Your task to perform on an android device: check android version Image 0: 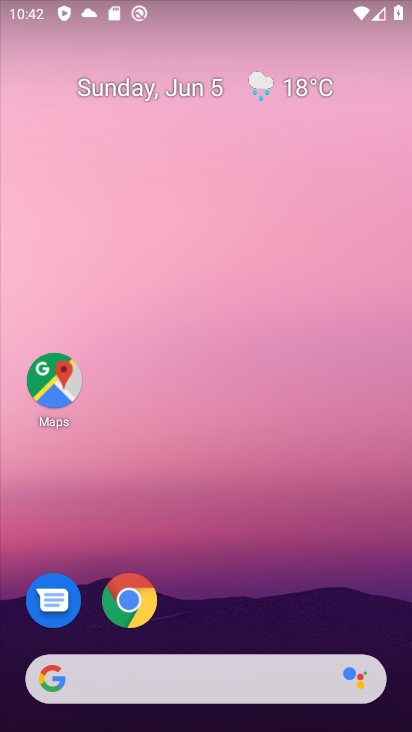
Step 0: drag from (242, 631) to (241, 218)
Your task to perform on an android device: check android version Image 1: 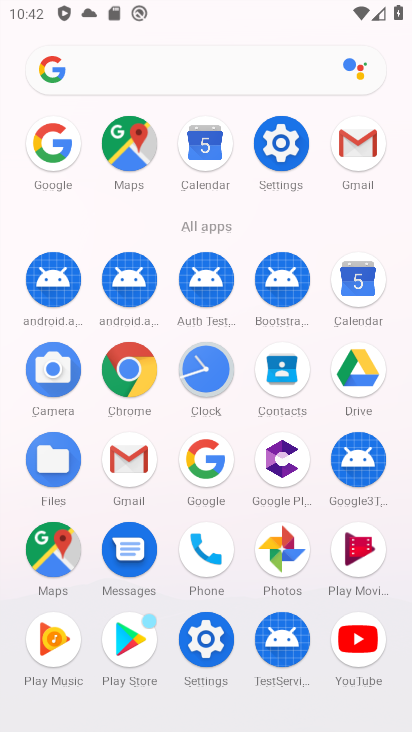
Step 1: click (258, 133)
Your task to perform on an android device: check android version Image 2: 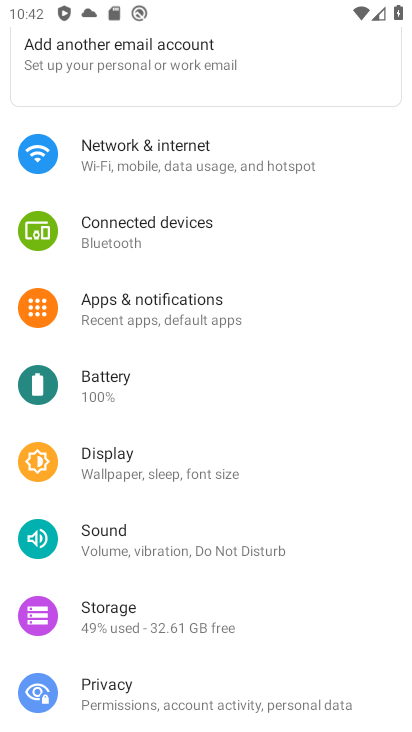
Step 2: drag from (212, 563) to (225, 239)
Your task to perform on an android device: check android version Image 3: 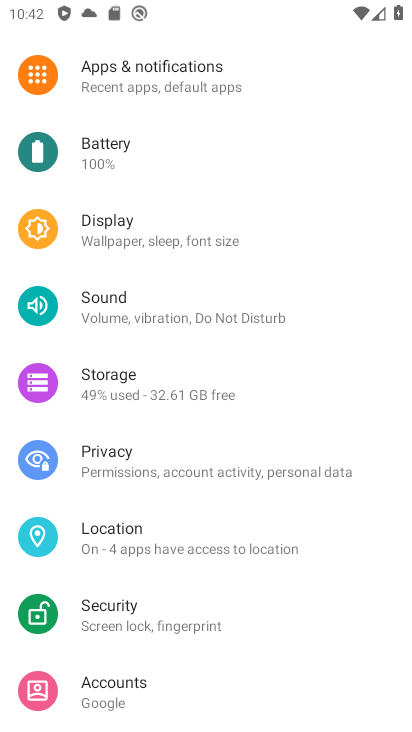
Step 3: drag from (224, 502) to (224, 176)
Your task to perform on an android device: check android version Image 4: 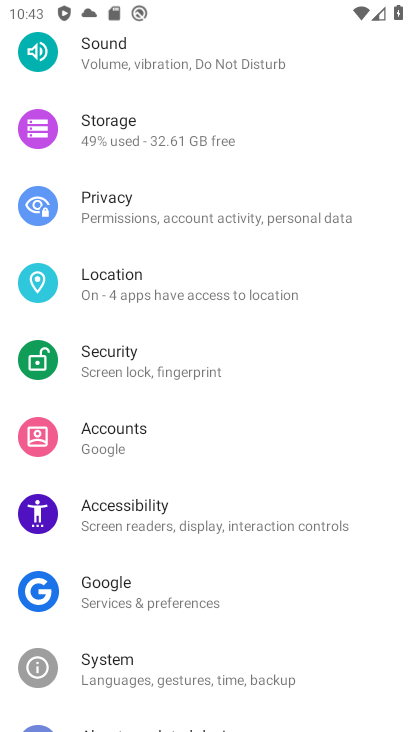
Step 4: drag from (242, 276) to (264, 202)
Your task to perform on an android device: check android version Image 5: 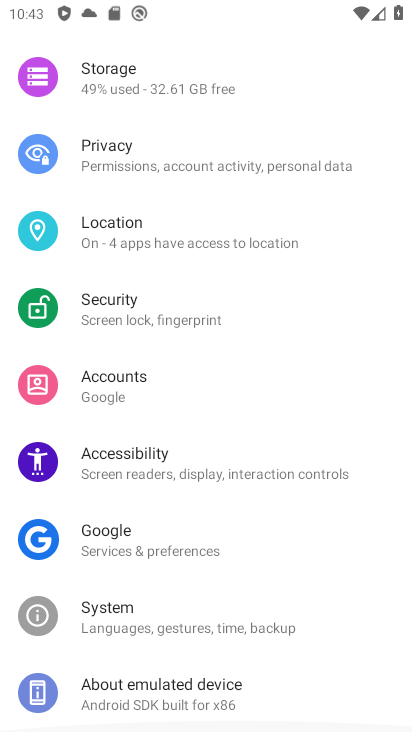
Step 5: drag from (219, 275) to (212, 221)
Your task to perform on an android device: check android version Image 6: 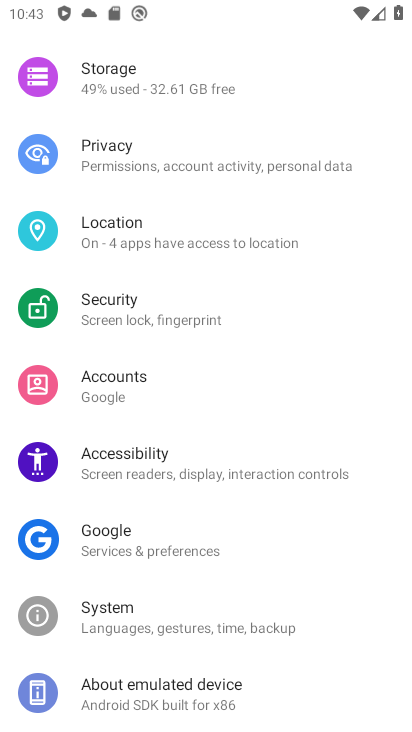
Step 6: drag from (203, 193) to (203, 152)
Your task to perform on an android device: check android version Image 7: 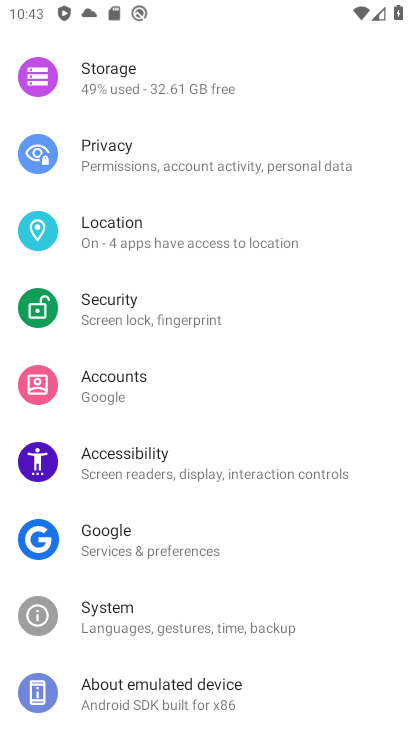
Step 7: click (141, 693)
Your task to perform on an android device: check android version Image 8: 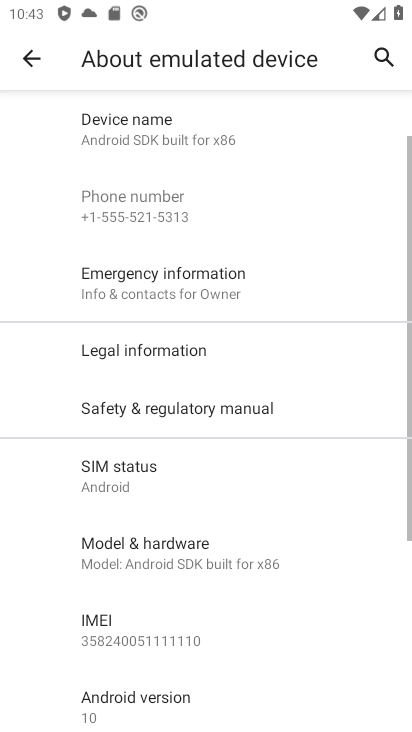
Step 8: drag from (239, 608) to (241, 151)
Your task to perform on an android device: check android version Image 9: 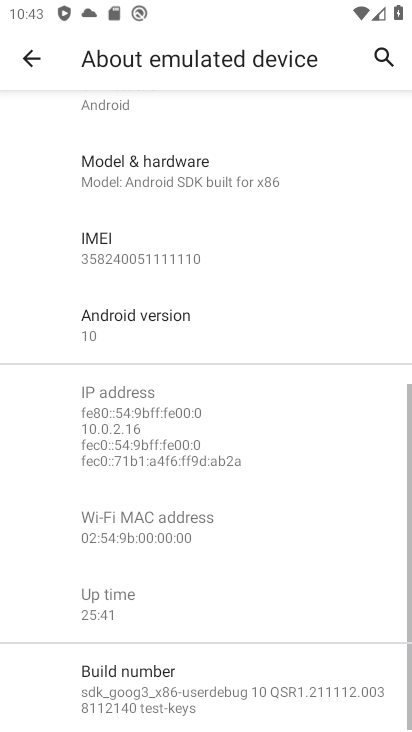
Step 9: drag from (241, 570) to (259, 186)
Your task to perform on an android device: check android version Image 10: 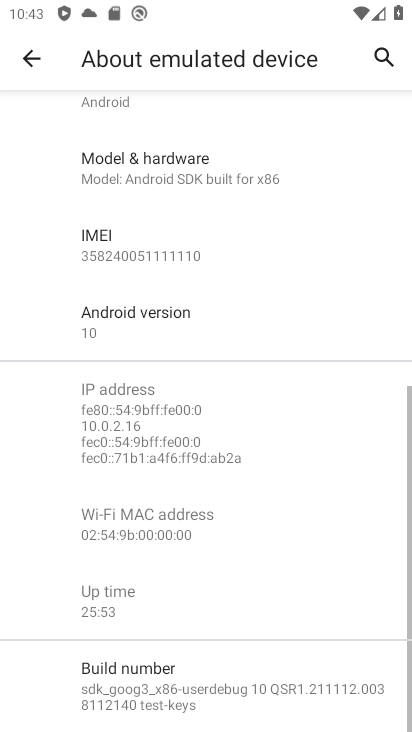
Step 10: drag from (216, 237) to (220, 463)
Your task to perform on an android device: check android version Image 11: 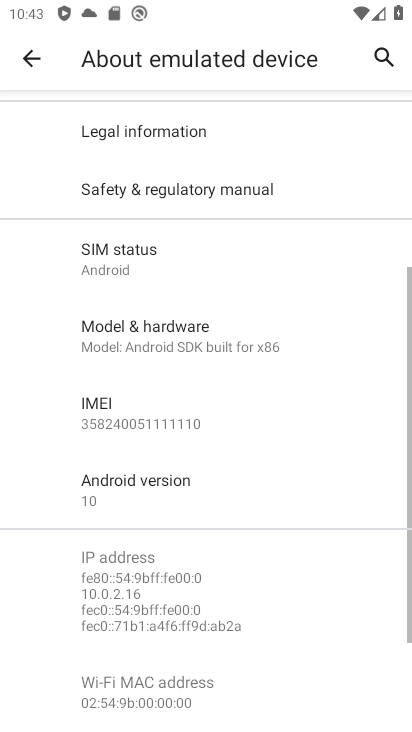
Step 11: drag from (216, 544) to (232, 219)
Your task to perform on an android device: check android version Image 12: 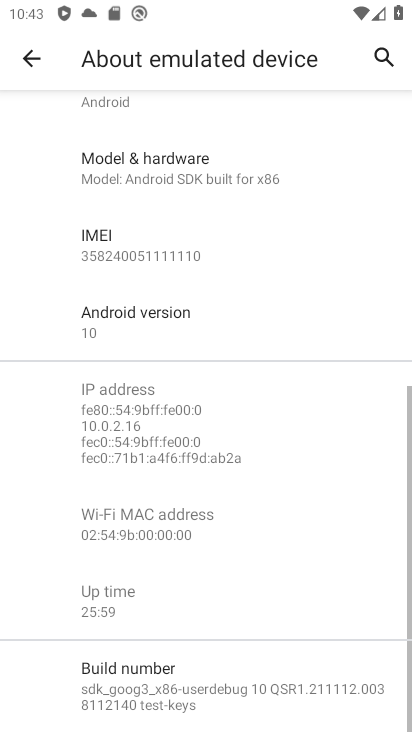
Step 12: drag from (224, 657) to (228, 321)
Your task to perform on an android device: check android version Image 13: 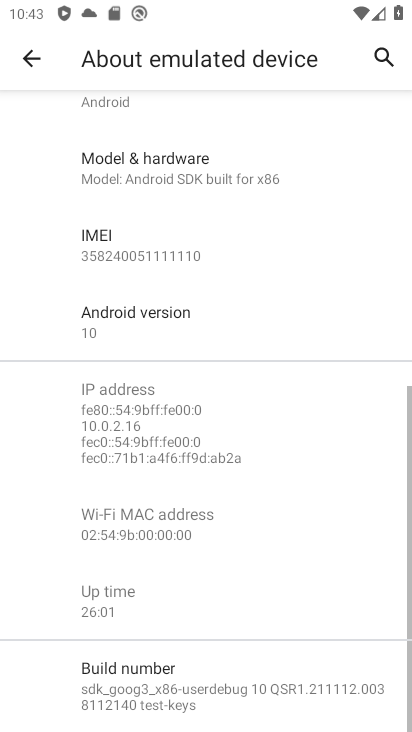
Step 13: click (166, 322)
Your task to perform on an android device: check android version Image 14: 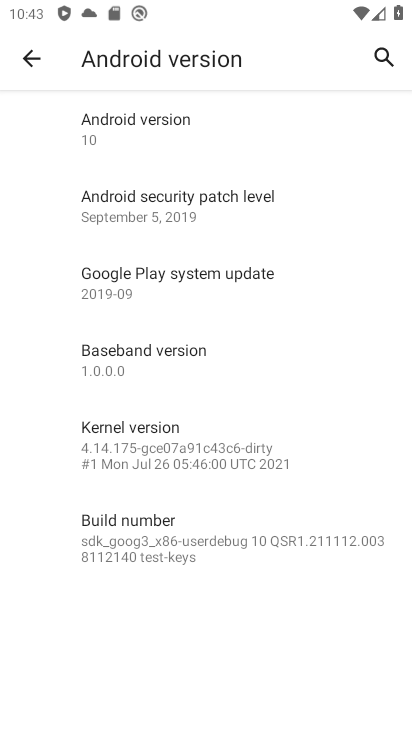
Step 14: click (142, 134)
Your task to perform on an android device: check android version Image 15: 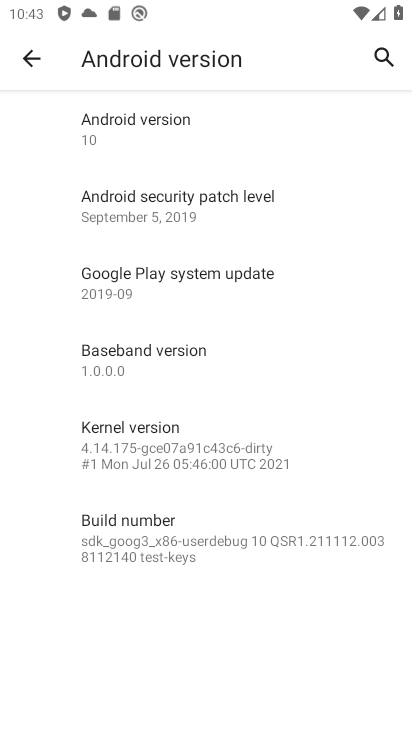
Step 15: task complete